Your task to perform on an android device: toggle translation in the chrome app Image 0: 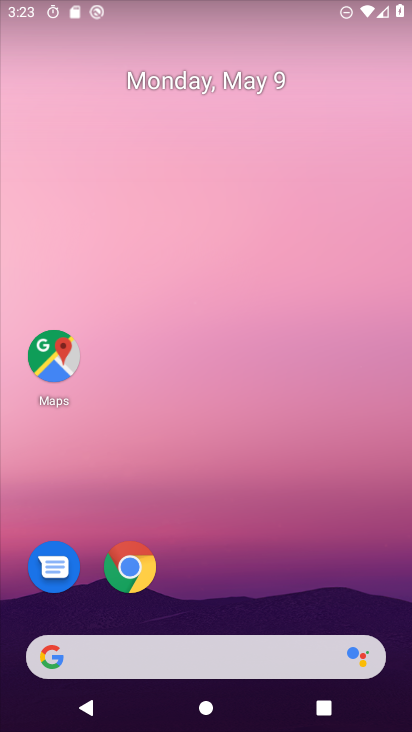
Step 0: click (136, 570)
Your task to perform on an android device: toggle translation in the chrome app Image 1: 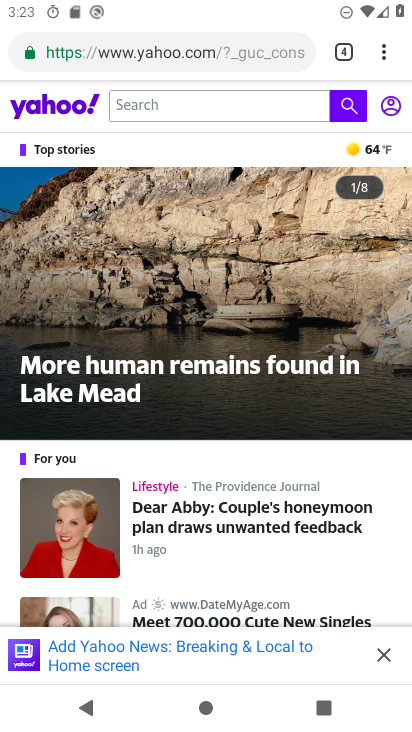
Step 1: click (388, 49)
Your task to perform on an android device: toggle translation in the chrome app Image 2: 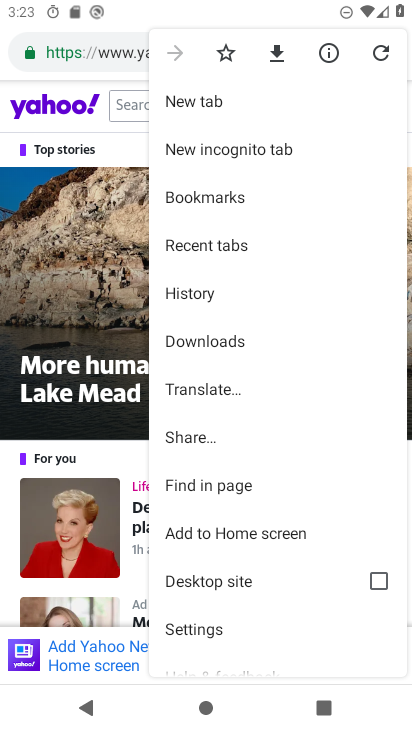
Step 2: click (210, 627)
Your task to perform on an android device: toggle translation in the chrome app Image 3: 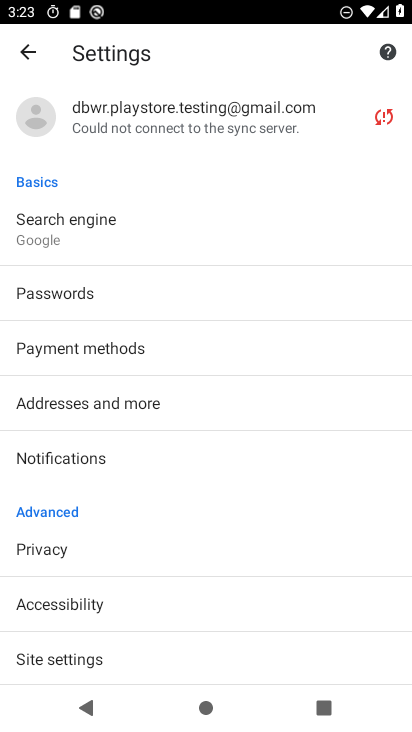
Step 3: drag from (146, 630) to (166, 414)
Your task to perform on an android device: toggle translation in the chrome app Image 4: 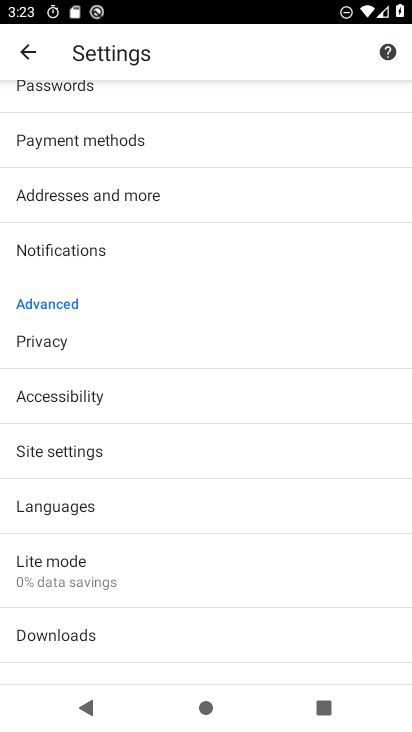
Step 4: click (100, 499)
Your task to perform on an android device: toggle translation in the chrome app Image 5: 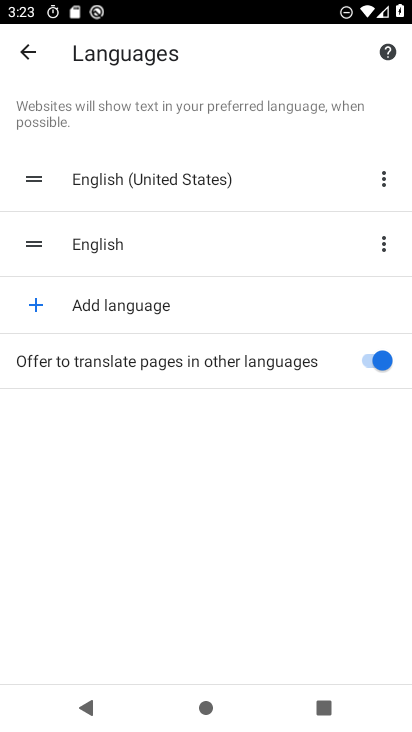
Step 5: click (369, 358)
Your task to perform on an android device: toggle translation in the chrome app Image 6: 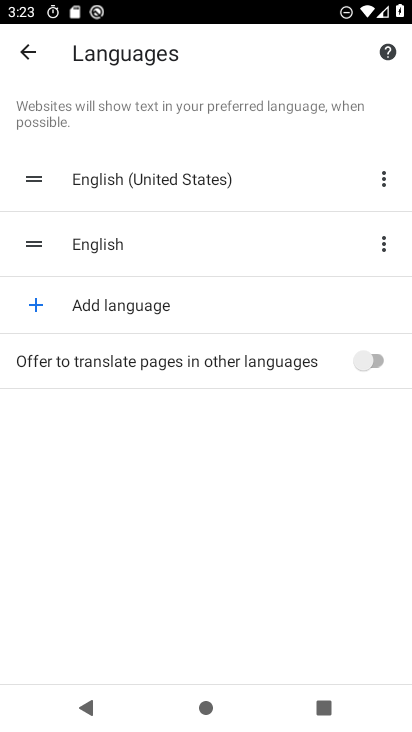
Step 6: task complete